Your task to perform on an android device: Open internet settings Image 0: 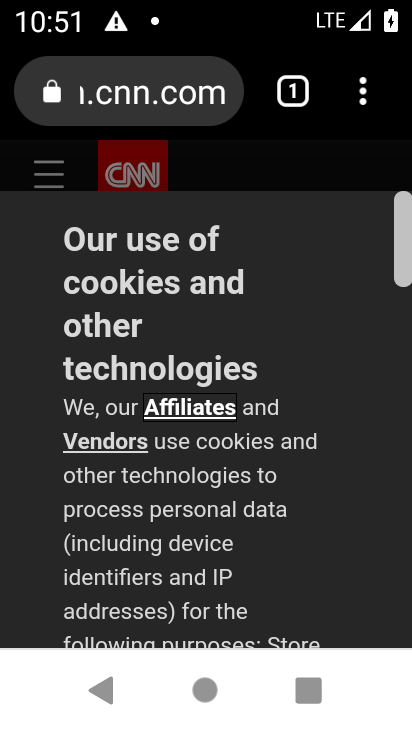
Step 0: press home button
Your task to perform on an android device: Open internet settings Image 1: 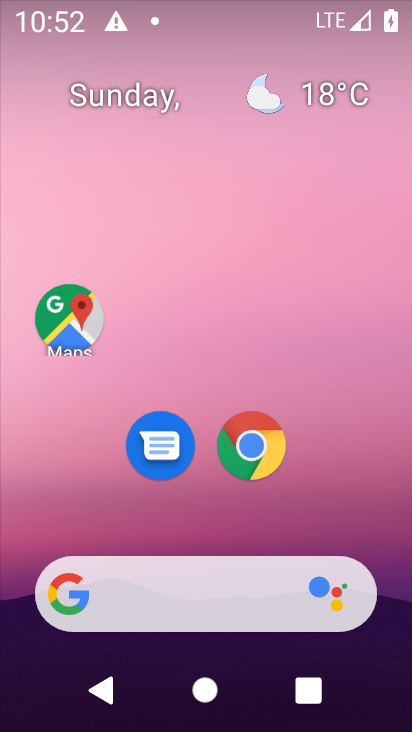
Step 1: drag from (189, 593) to (123, 0)
Your task to perform on an android device: Open internet settings Image 2: 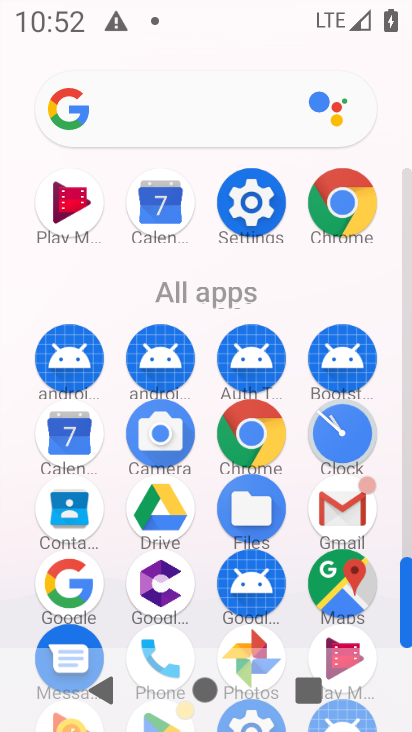
Step 2: click (260, 200)
Your task to perform on an android device: Open internet settings Image 3: 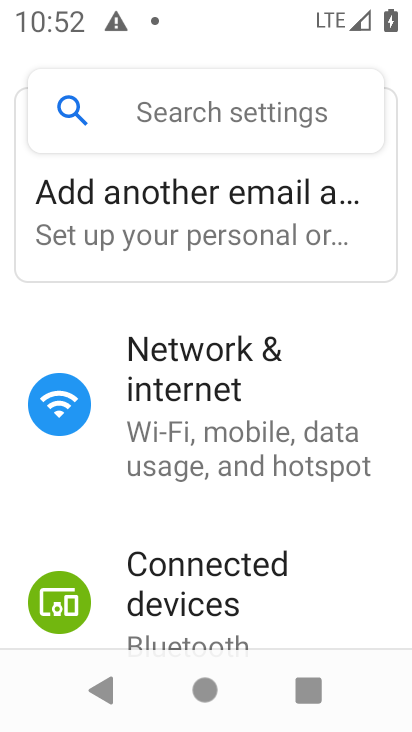
Step 3: click (157, 410)
Your task to perform on an android device: Open internet settings Image 4: 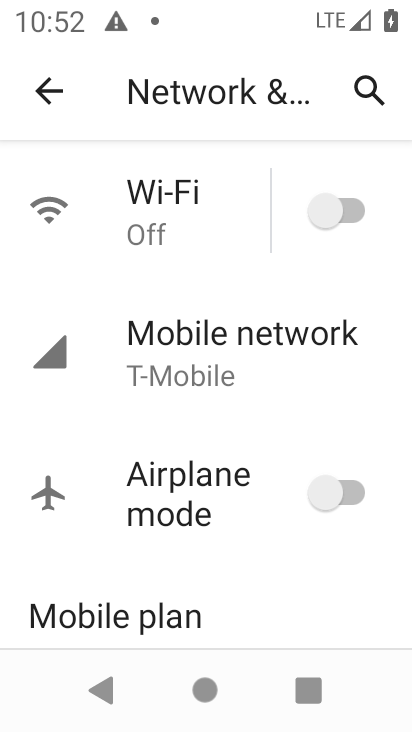
Step 4: task complete